Your task to perform on an android device: open chrome privacy settings Image 0: 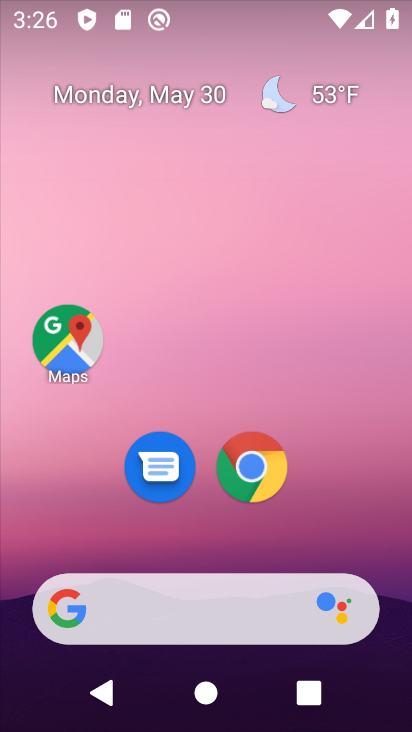
Step 0: click (258, 473)
Your task to perform on an android device: open chrome privacy settings Image 1: 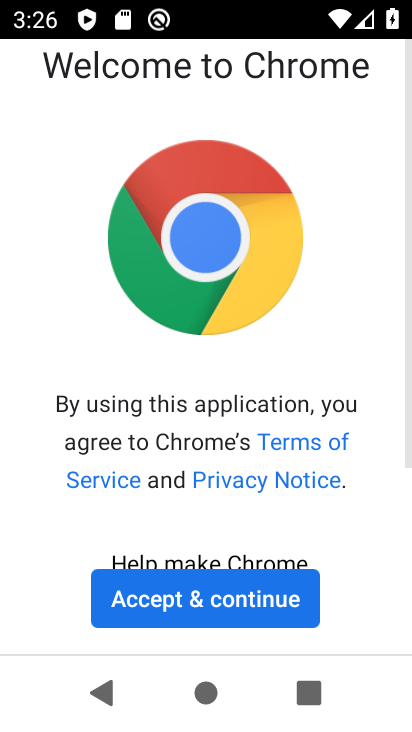
Step 1: click (253, 581)
Your task to perform on an android device: open chrome privacy settings Image 2: 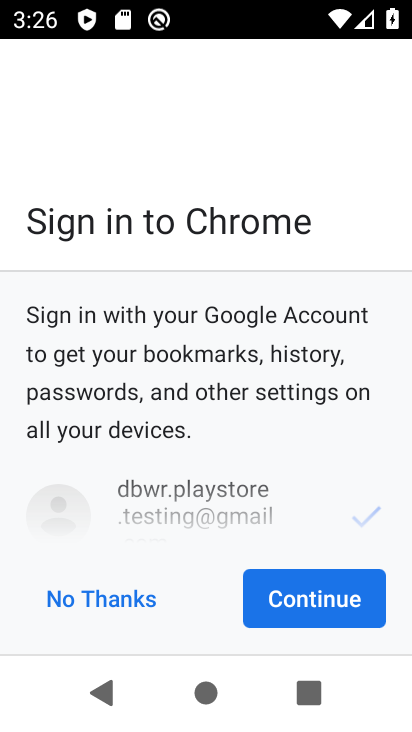
Step 2: click (299, 604)
Your task to perform on an android device: open chrome privacy settings Image 3: 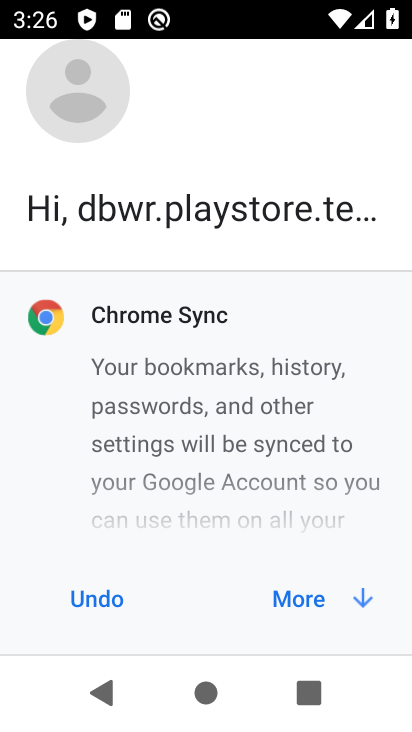
Step 3: click (364, 621)
Your task to perform on an android device: open chrome privacy settings Image 4: 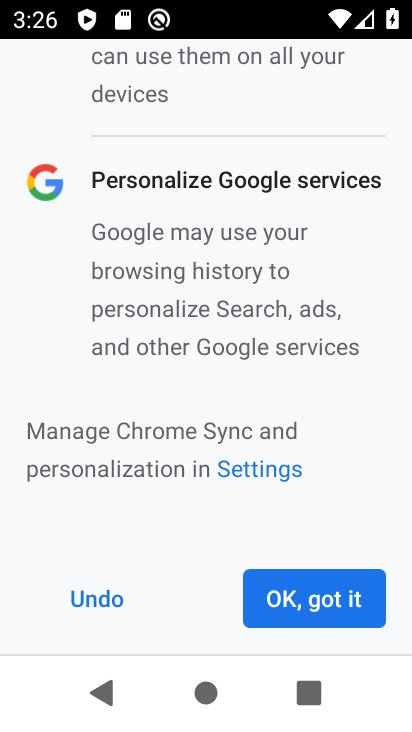
Step 4: click (364, 620)
Your task to perform on an android device: open chrome privacy settings Image 5: 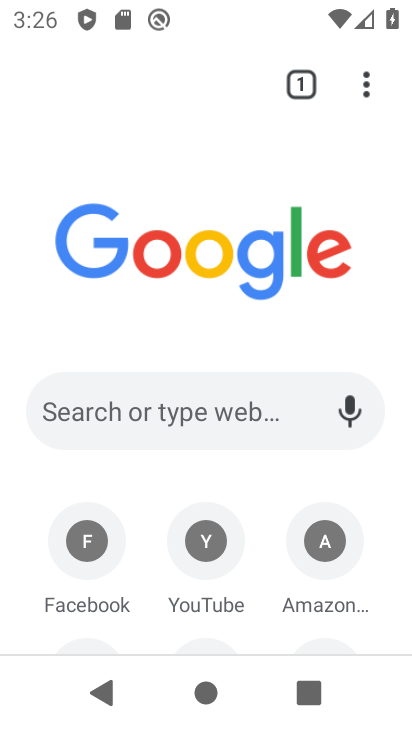
Step 5: drag from (382, 103) to (266, 527)
Your task to perform on an android device: open chrome privacy settings Image 6: 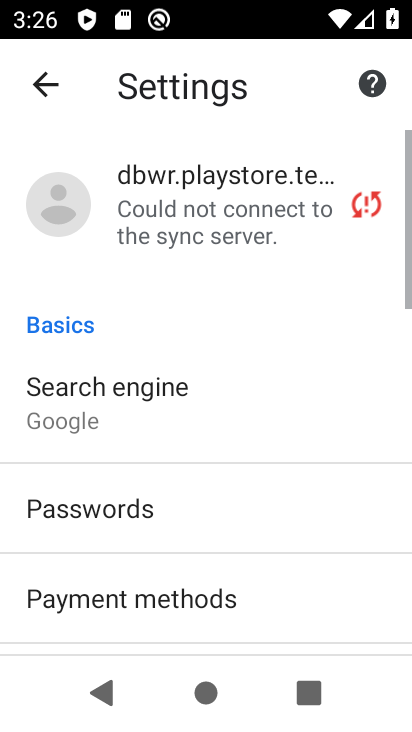
Step 6: drag from (176, 583) to (259, 138)
Your task to perform on an android device: open chrome privacy settings Image 7: 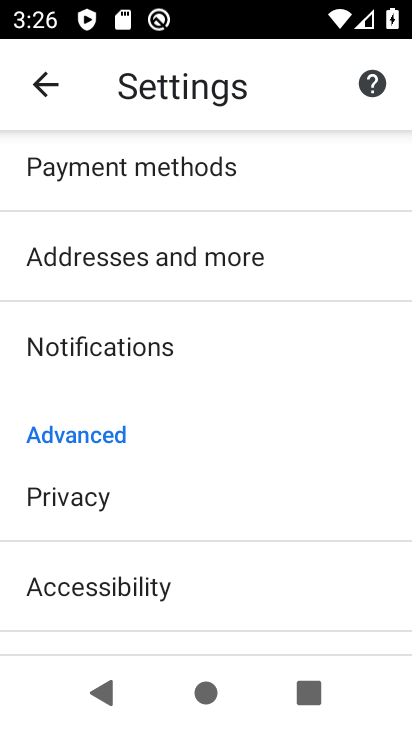
Step 7: click (147, 512)
Your task to perform on an android device: open chrome privacy settings Image 8: 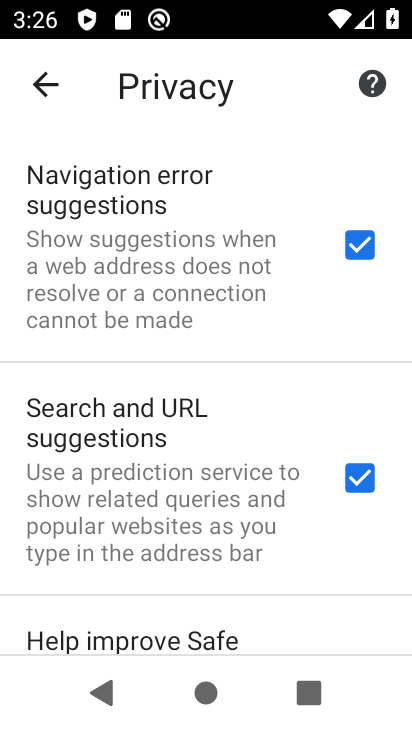
Step 8: task complete